Your task to perform on an android device: open a new tab in the chrome app Image 0: 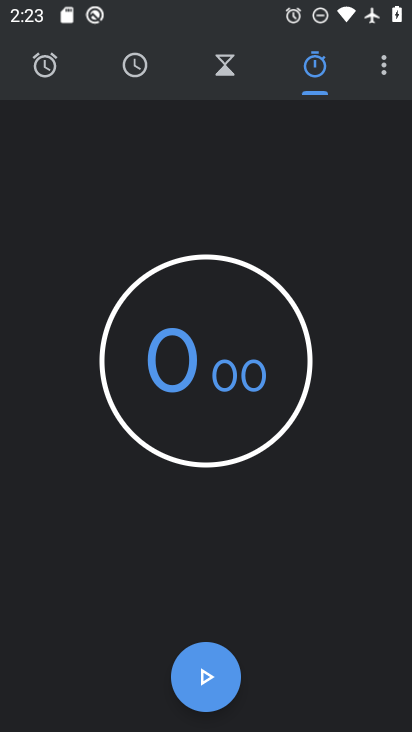
Step 0: press home button
Your task to perform on an android device: open a new tab in the chrome app Image 1: 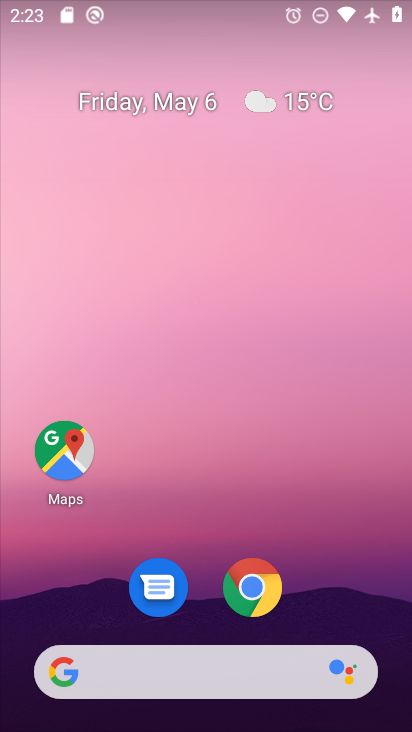
Step 1: click (253, 590)
Your task to perform on an android device: open a new tab in the chrome app Image 2: 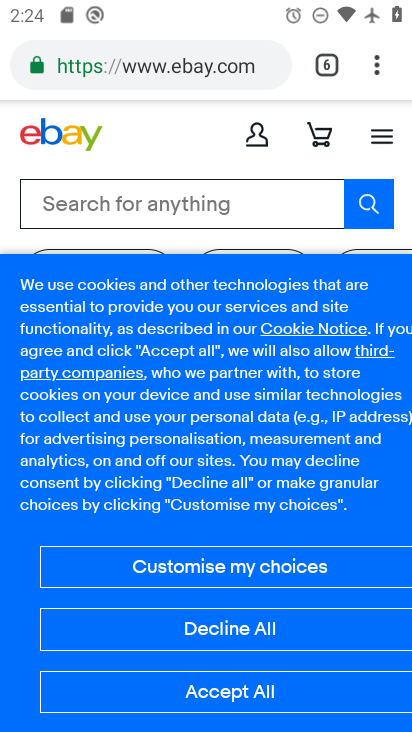
Step 2: click (326, 64)
Your task to perform on an android device: open a new tab in the chrome app Image 3: 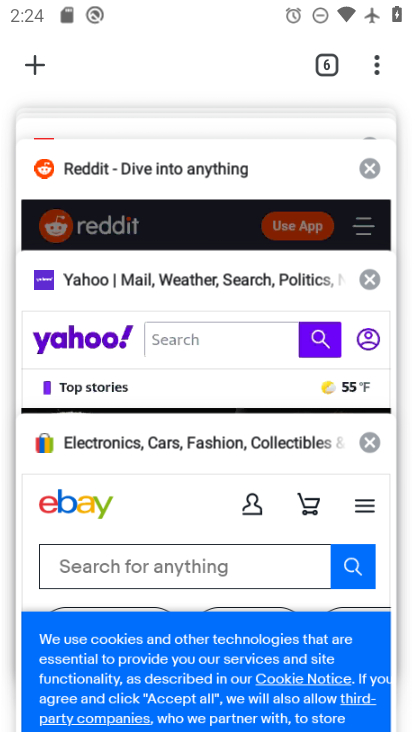
Step 3: click (35, 65)
Your task to perform on an android device: open a new tab in the chrome app Image 4: 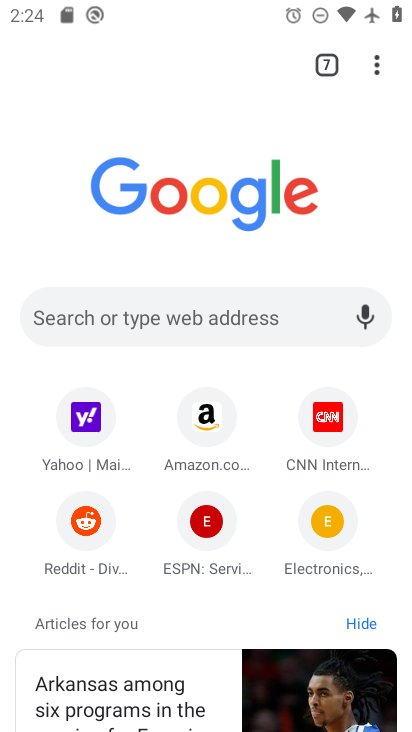
Step 4: task complete